Your task to perform on an android device: empty trash in google photos Image 0: 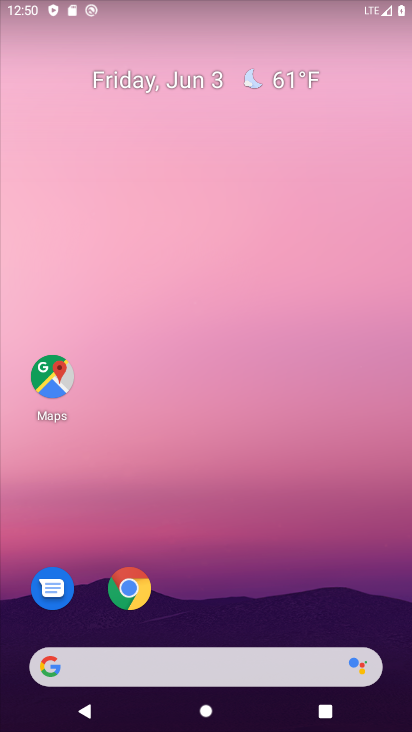
Step 0: drag from (55, 562) to (288, 111)
Your task to perform on an android device: empty trash in google photos Image 1: 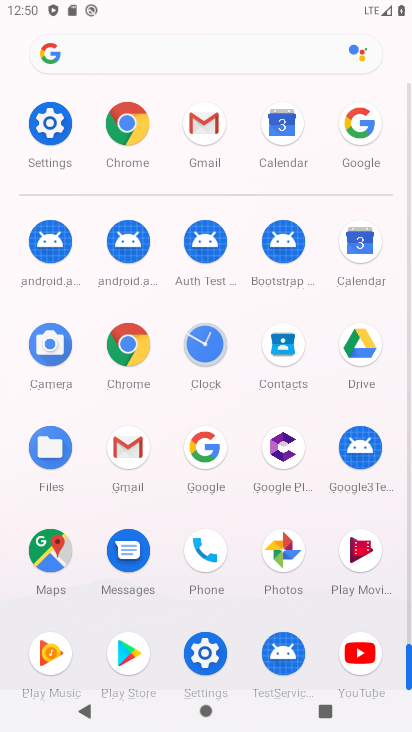
Step 1: click (268, 546)
Your task to perform on an android device: empty trash in google photos Image 2: 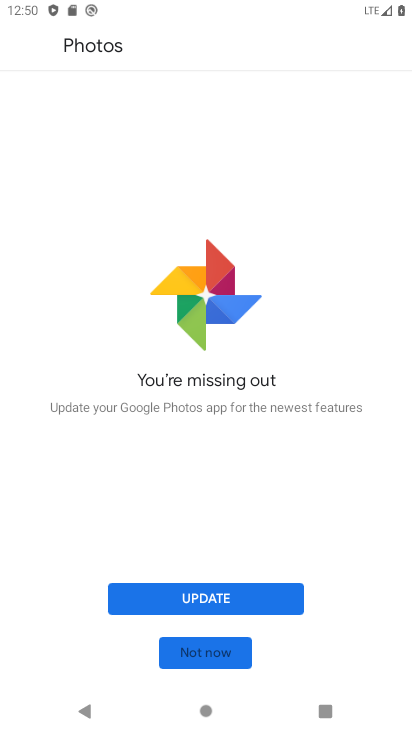
Step 2: click (207, 662)
Your task to perform on an android device: empty trash in google photos Image 3: 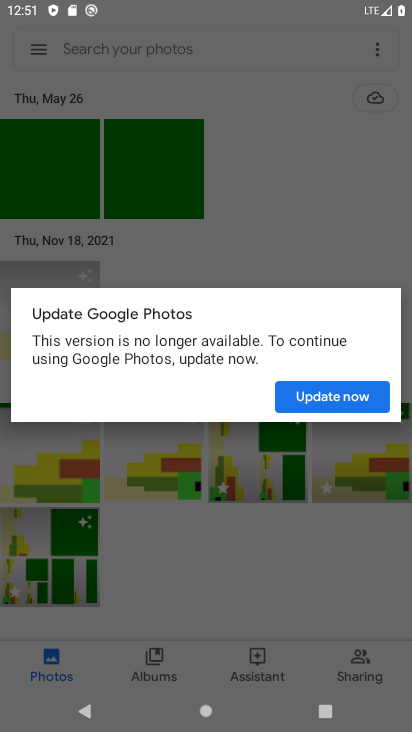
Step 3: click (317, 410)
Your task to perform on an android device: empty trash in google photos Image 4: 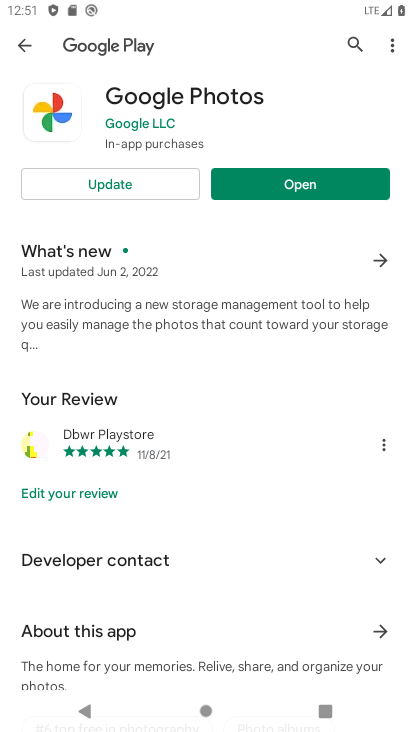
Step 4: click (318, 189)
Your task to perform on an android device: empty trash in google photos Image 5: 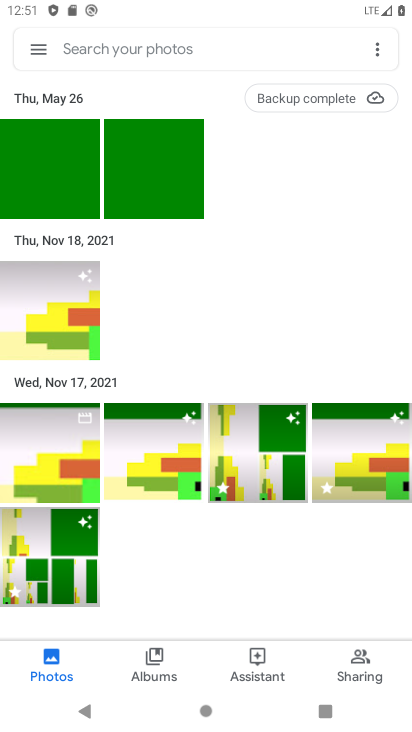
Step 5: click (31, 49)
Your task to perform on an android device: empty trash in google photos Image 6: 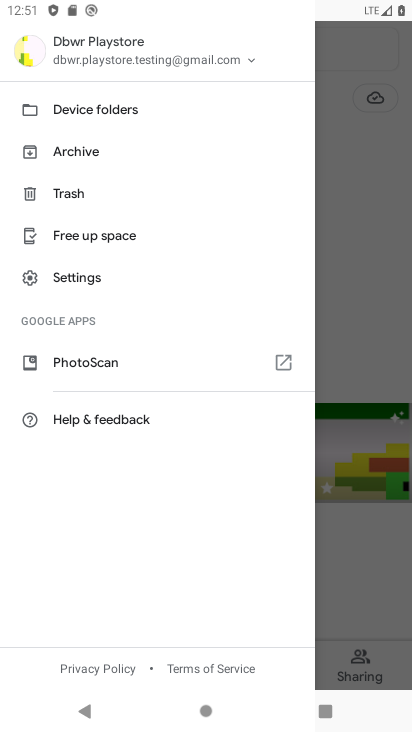
Step 6: click (69, 198)
Your task to perform on an android device: empty trash in google photos Image 7: 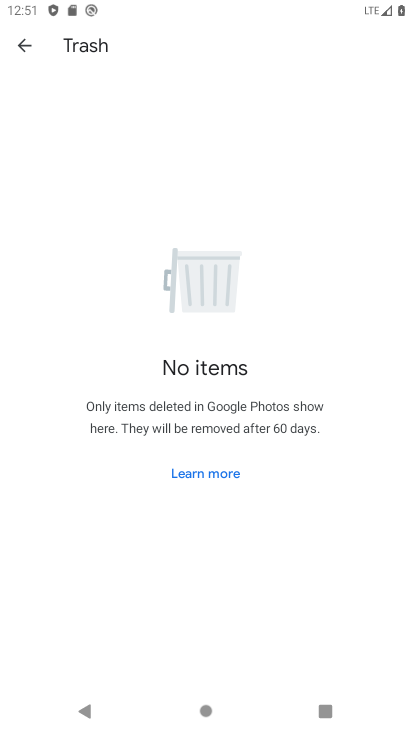
Step 7: task complete